Your task to perform on an android device: Open ESPN.com Image 0: 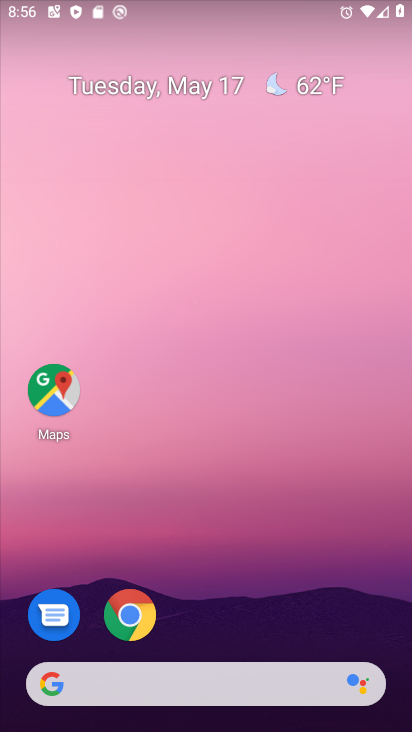
Step 0: click (138, 614)
Your task to perform on an android device: Open ESPN.com Image 1: 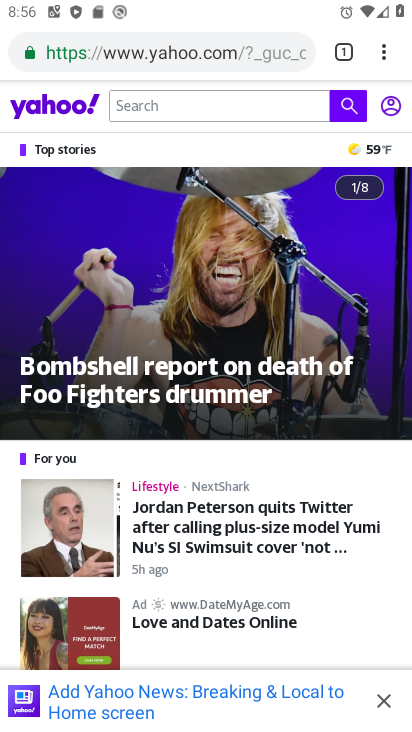
Step 1: click (345, 52)
Your task to perform on an android device: Open ESPN.com Image 2: 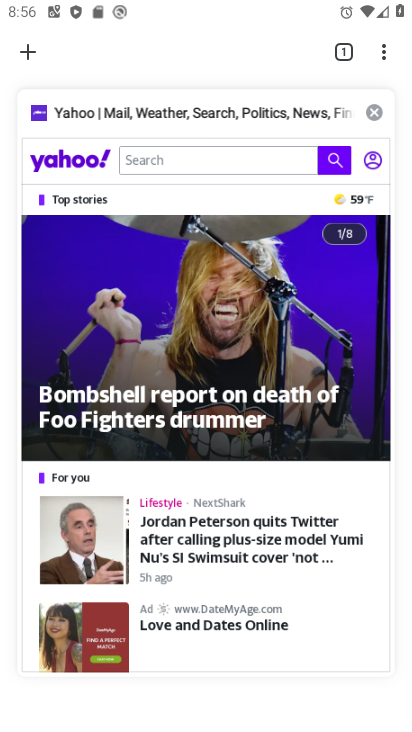
Step 2: click (370, 110)
Your task to perform on an android device: Open ESPN.com Image 3: 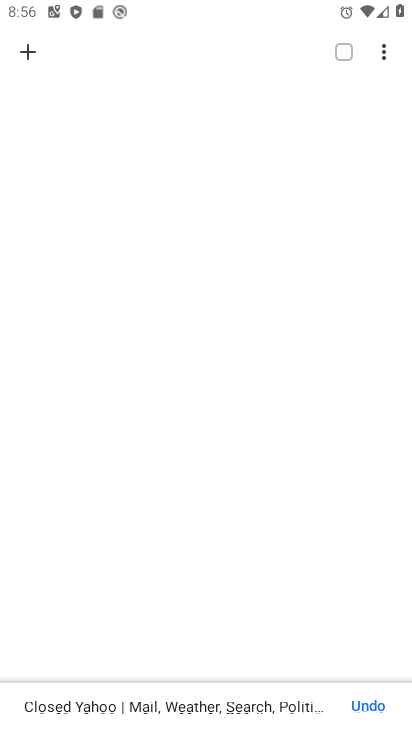
Step 3: click (32, 44)
Your task to perform on an android device: Open ESPN.com Image 4: 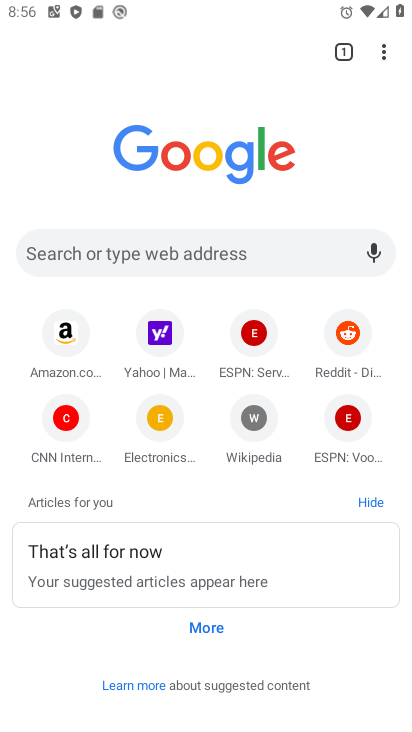
Step 4: click (237, 258)
Your task to perform on an android device: Open ESPN.com Image 5: 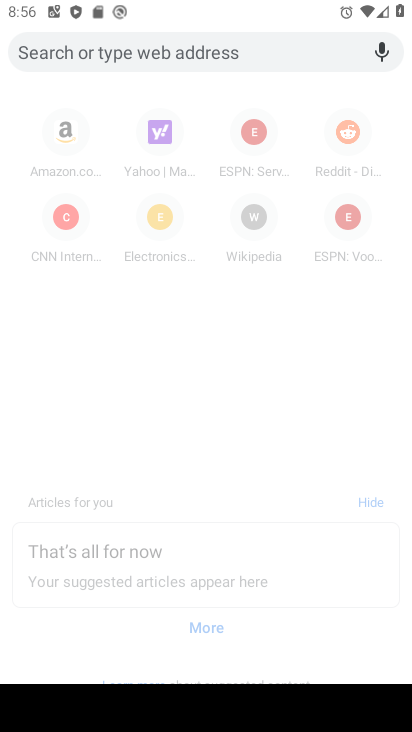
Step 5: type "espn.com"
Your task to perform on an android device: Open ESPN.com Image 6: 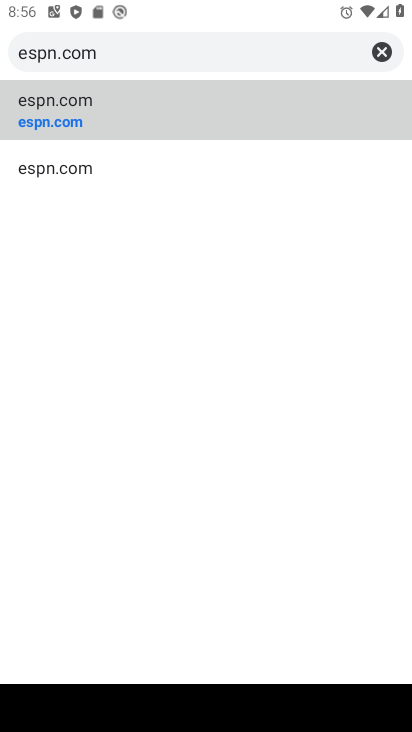
Step 6: click (113, 120)
Your task to perform on an android device: Open ESPN.com Image 7: 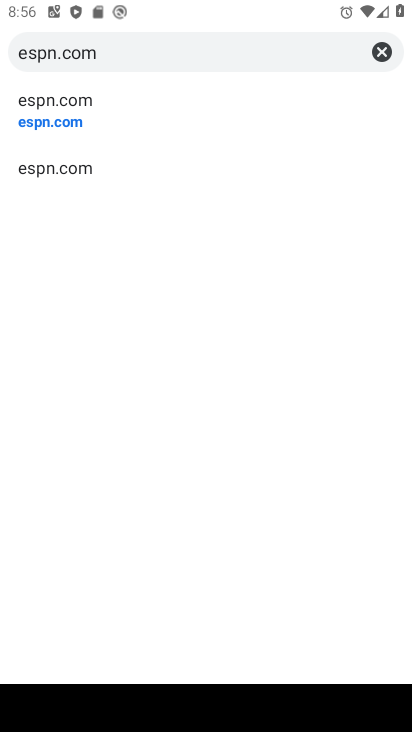
Step 7: click (114, 121)
Your task to perform on an android device: Open ESPN.com Image 8: 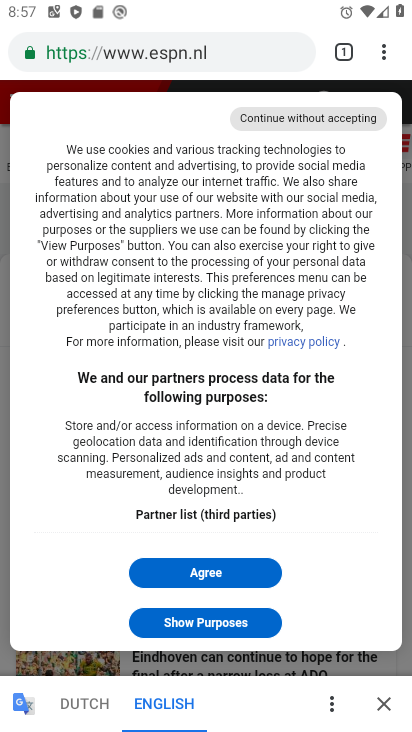
Step 8: click (223, 620)
Your task to perform on an android device: Open ESPN.com Image 9: 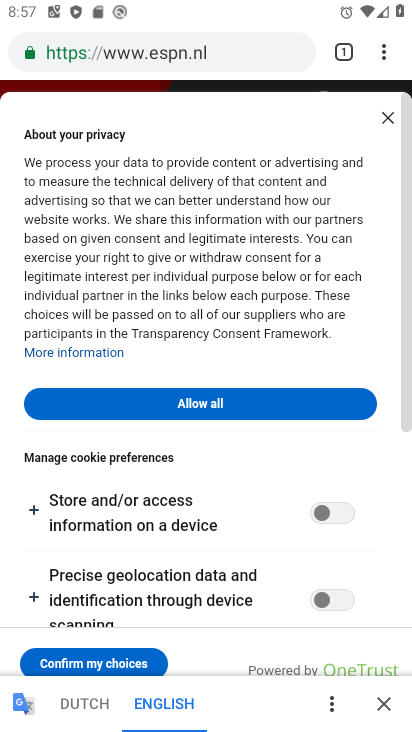
Step 9: task complete